Your task to perform on an android device: toggle wifi Image 0: 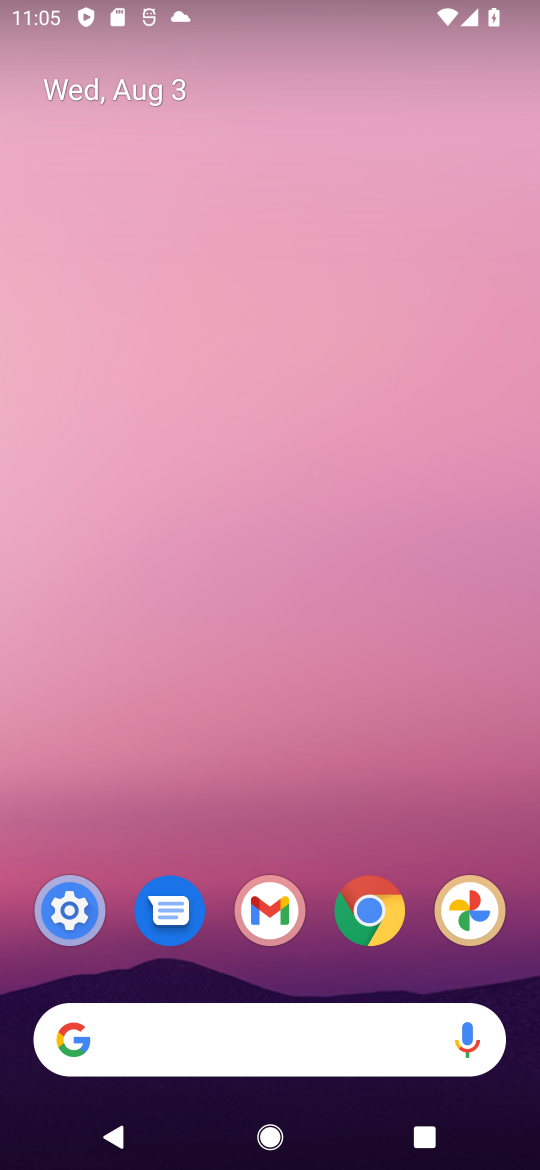
Step 0: drag from (322, 870) to (440, 0)
Your task to perform on an android device: toggle wifi Image 1: 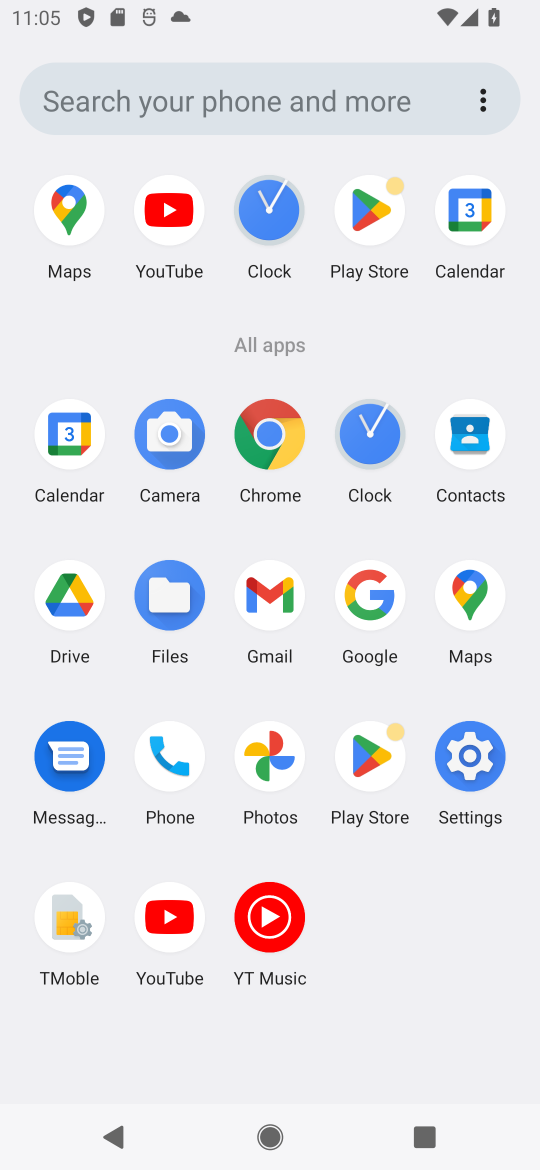
Step 1: click (473, 752)
Your task to perform on an android device: toggle wifi Image 2: 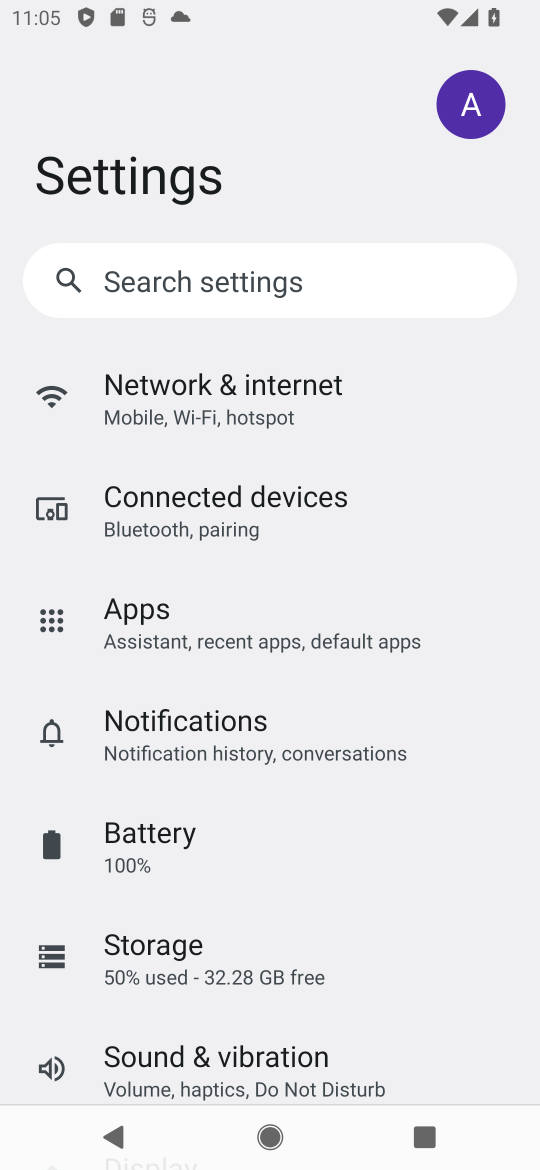
Step 2: click (289, 410)
Your task to perform on an android device: toggle wifi Image 3: 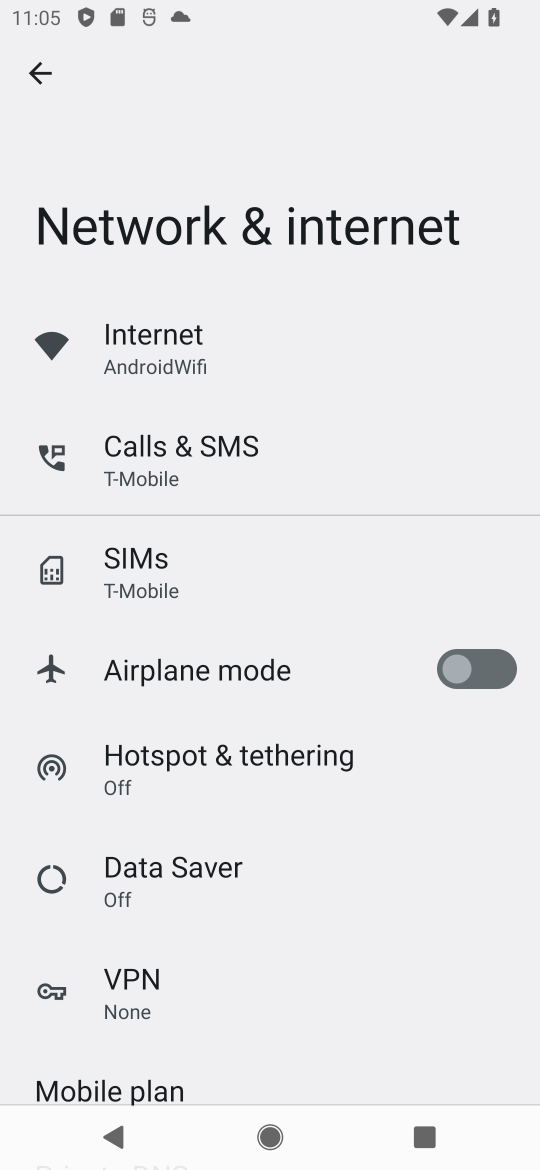
Step 3: click (222, 347)
Your task to perform on an android device: toggle wifi Image 4: 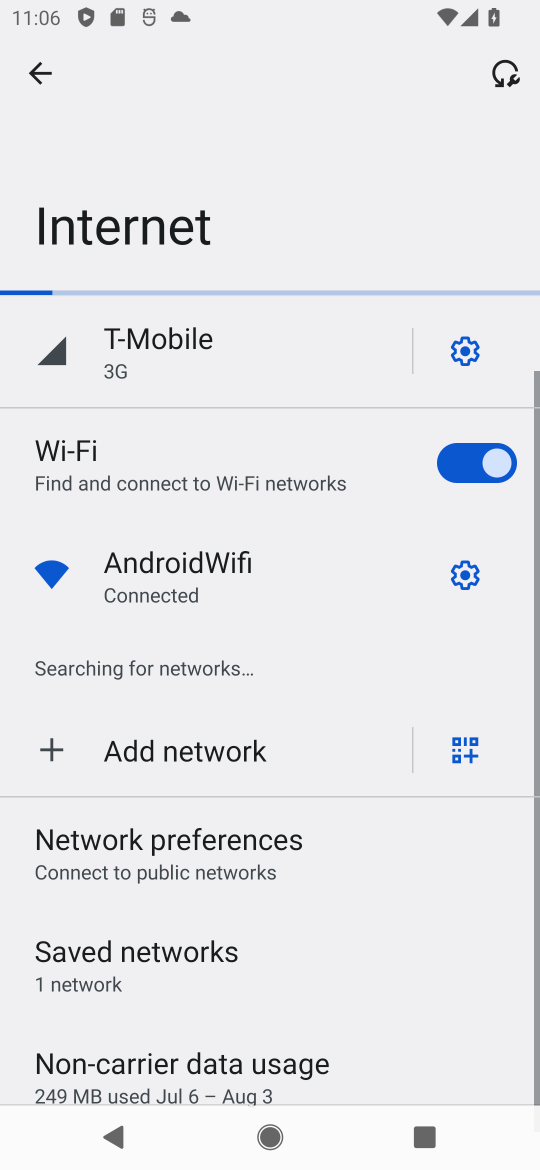
Step 4: task complete